Your task to perform on an android device: open a bookmark in the chrome app Image 0: 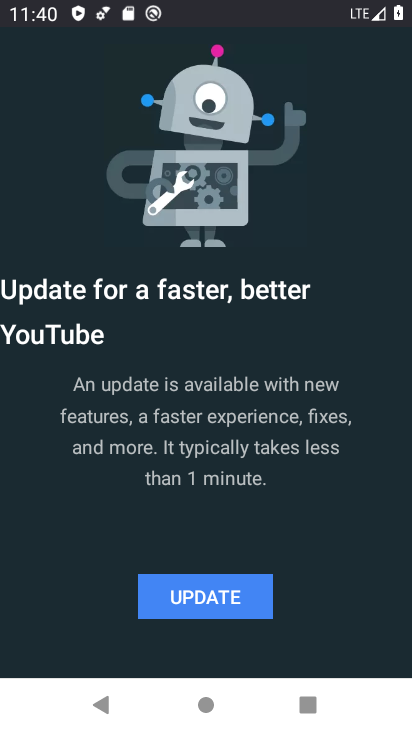
Step 0: press home button
Your task to perform on an android device: open a bookmark in the chrome app Image 1: 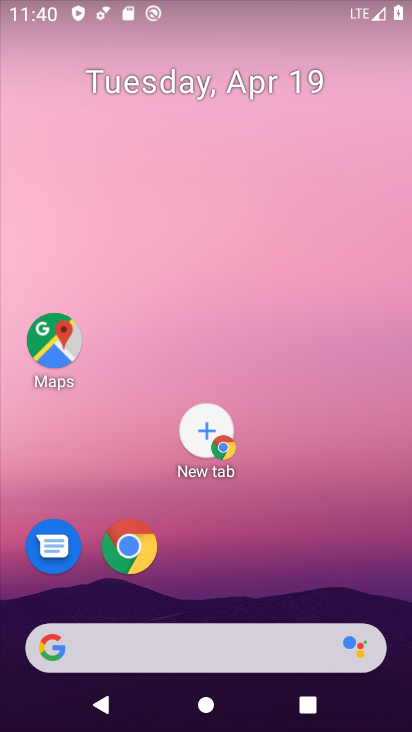
Step 1: click (123, 543)
Your task to perform on an android device: open a bookmark in the chrome app Image 2: 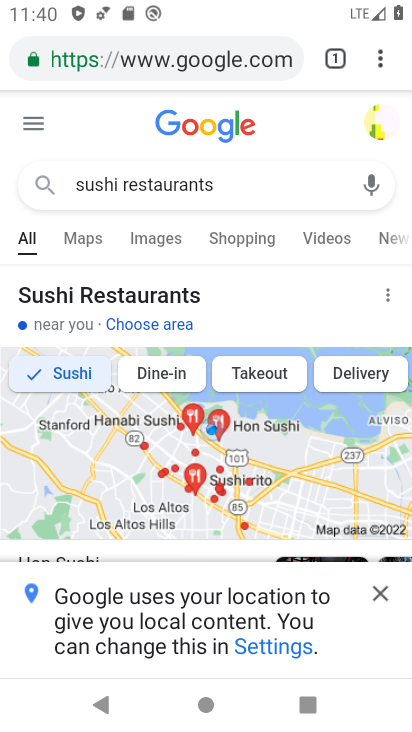
Step 2: click (394, 52)
Your task to perform on an android device: open a bookmark in the chrome app Image 3: 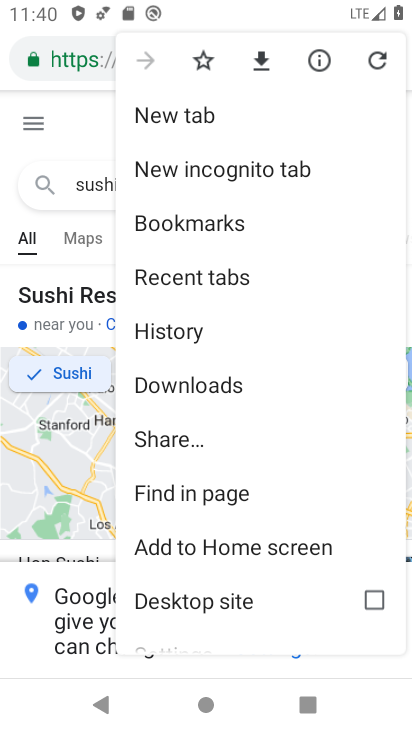
Step 3: drag from (210, 571) to (238, 203)
Your task to perform on an android device: open a bookmark in the chrome app Image 4: 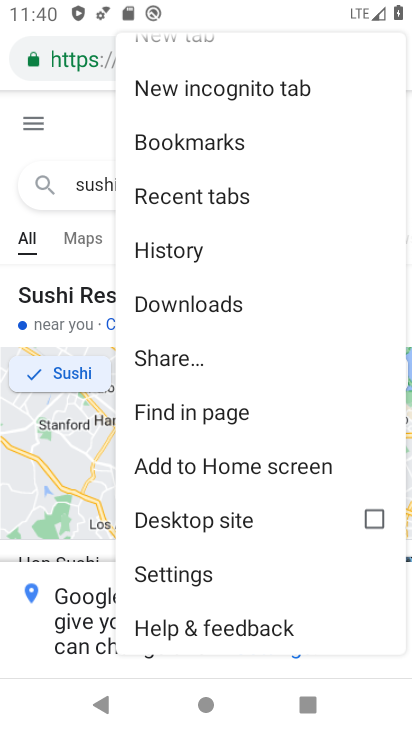
Step 4: click (191, 134)
Your task to perform on an android device: open a bookmark in the chrome app Image 5: 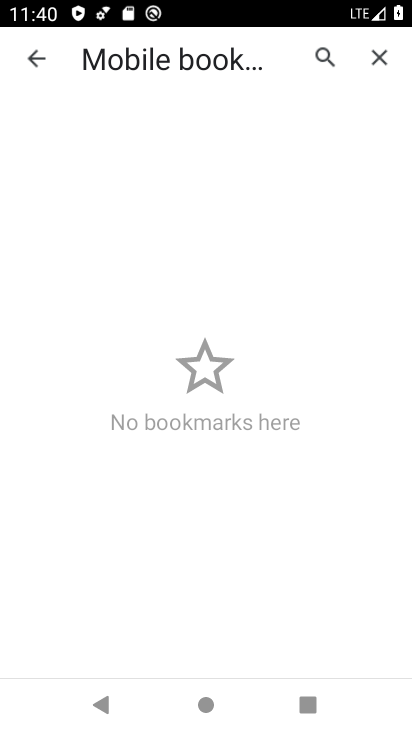
Step 5: task complete